Your task to perform on an android device: Set the phone to "Do not disturb". Image 0: 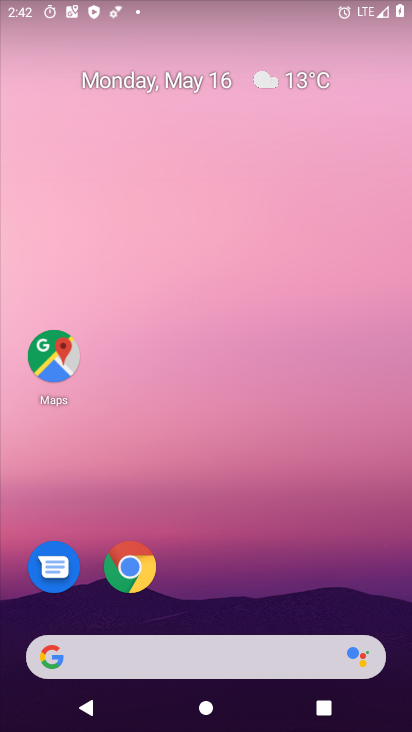
Step 0: drag from (184, 3) to (188, 523)
Your task to perform on an android device: Set the phone to "Do not disturb". Image 1: 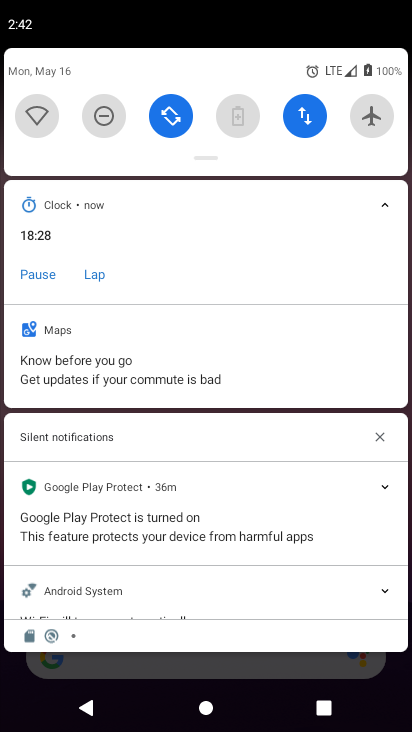
Step 1: drag from (123, 127) to (138, 473)
Your task to perform on an android device: Set the phone to "Do not disturb". Image 2: 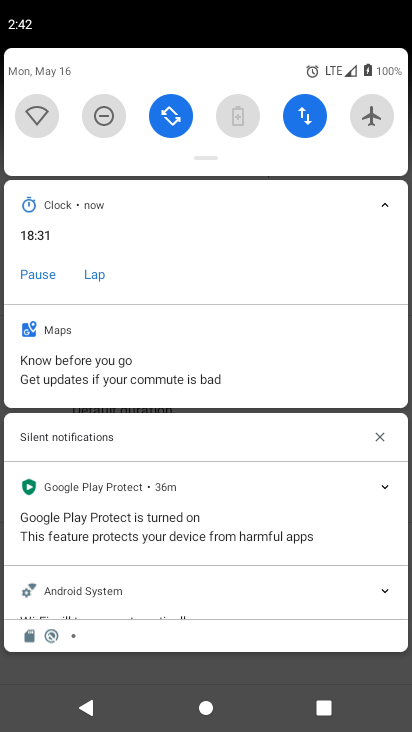
Step 2: drag from (126, 152) to (140, 578)
Your task to perform on an android device: Set the phone to "Do not disturb". Image 3: 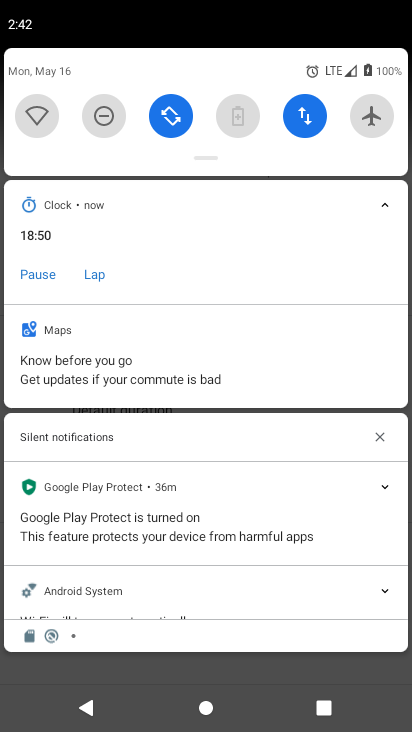
Step 3: click (101, 117)
Your task to perform on an android device: Set the phone to "Do not disturb". Image 4: 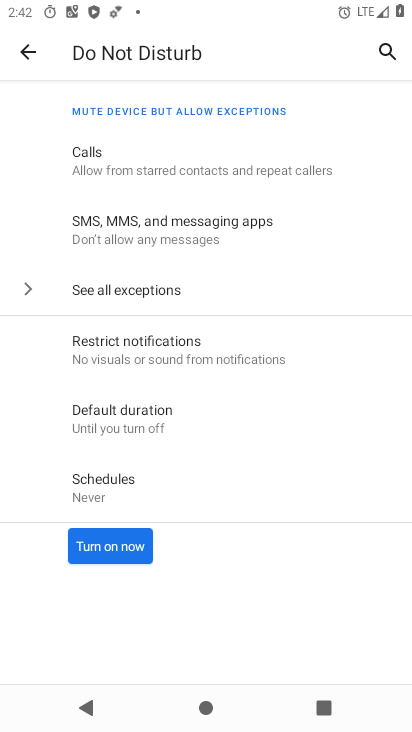
Step 4: click (135, 542)
Your task to perform on an android device: Set the phone to "Do not disturb". Image 5: 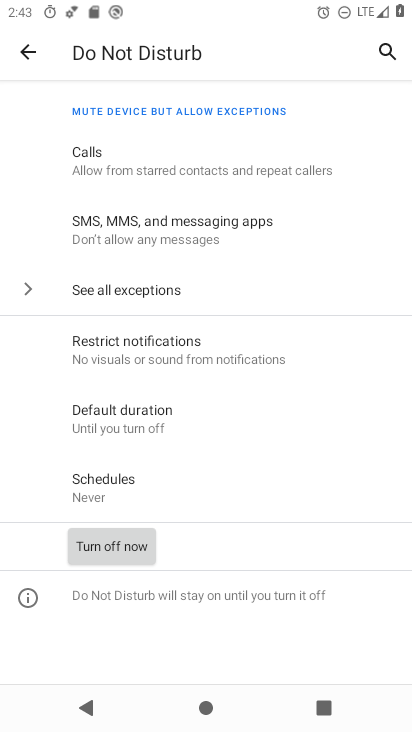
Step 5: task complete